Your task to perform on an android device: turn vacation reply on in the gmail app Image 0: 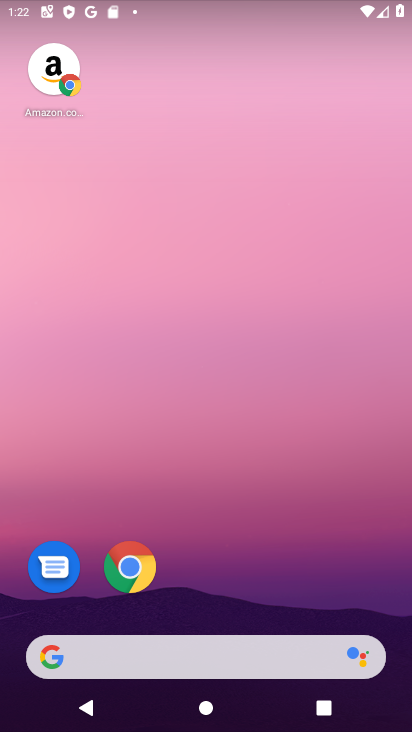
Step 0: drag from (307, 580) to (377, 82)
Your task to perform on an android device: turn vacation reply on in the gmail app Image 1: 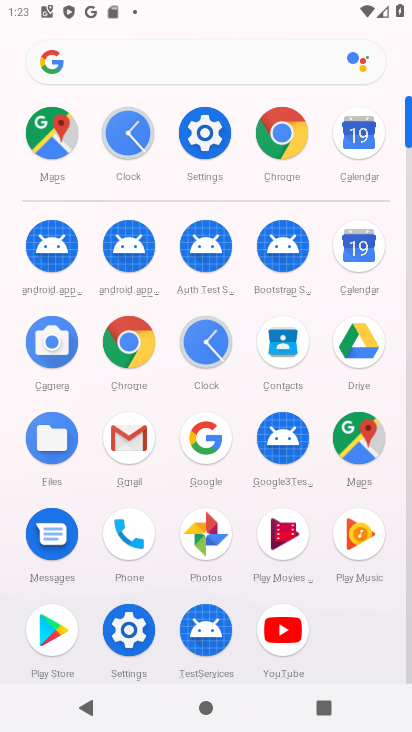
Step 1: click (133, 447)
Your task to perform on an android device: turn vacation reply on in the gmail app Image 2: 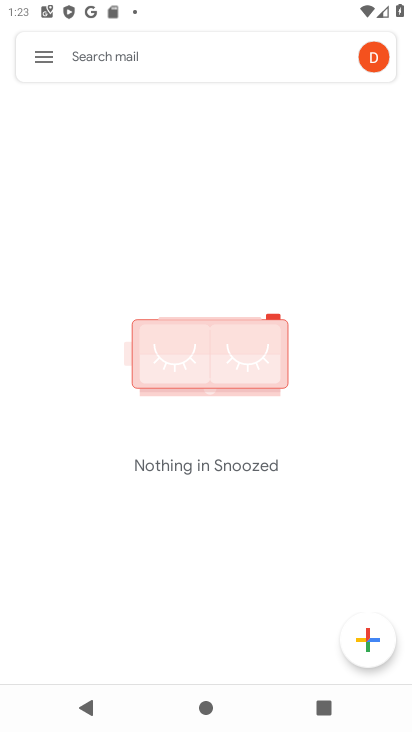
Step 2: click (41, 65)
Your task to perform on an android device: turn vacation reply on in the gmail app Image 3: 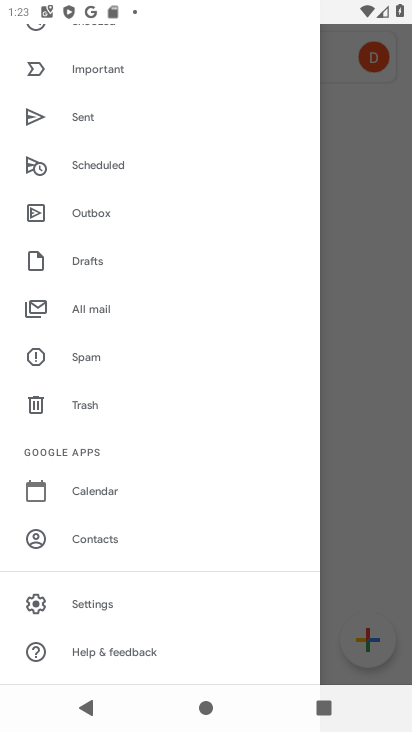
Step 3: click (85, 603)
Your task to perform on an android device: turn vacation reply on in the gmail app Image 4: 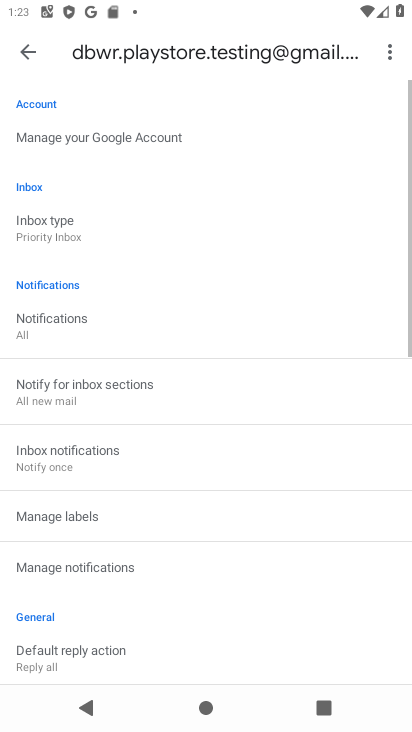
Step 4: drag from (126, 628) to (187, 246)
Your task to perform on an android device: turn vacation reply on in the gmail app Image 5: 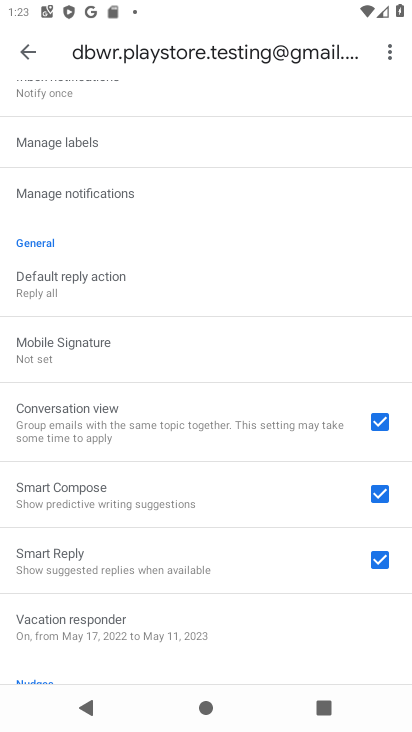
Step 5: click (149, 622)
Your task to perform on an android device: turn vacation reply on in the gmail app Image 6: 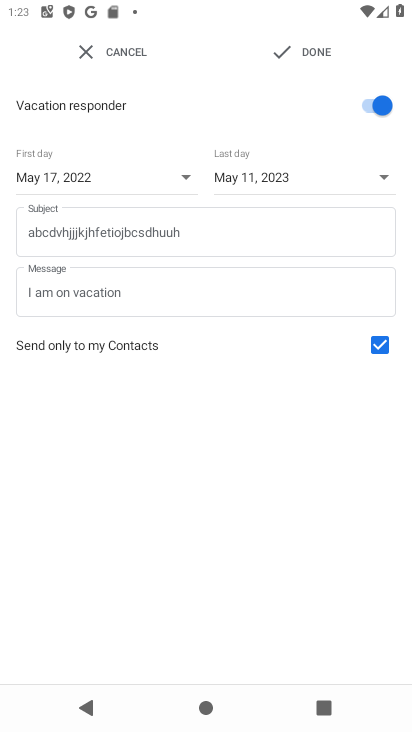
Step 6: task complete